Your task to perform on an android device: change notifications settings Image 0: 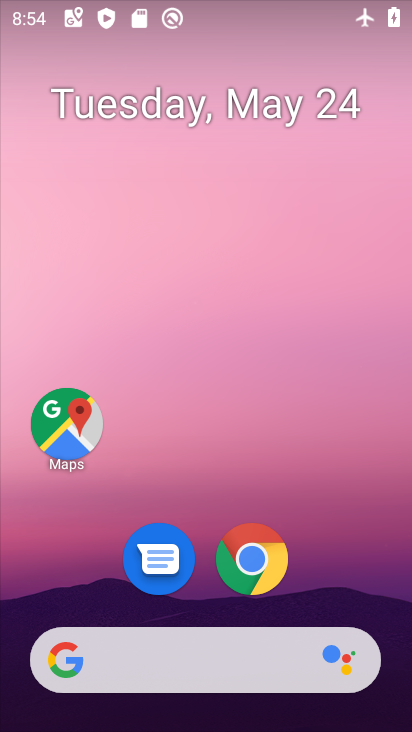
Step 0: drag from (259, 722) to (199, 87)
Your task to perform on an android device: change notifications settings Image 1: 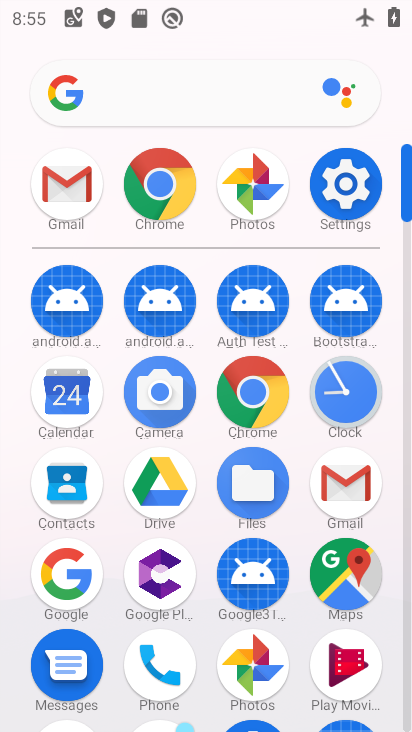
Step 1: click (337, 196)
Your task to perform on an android device: change notifications settings Image 2: 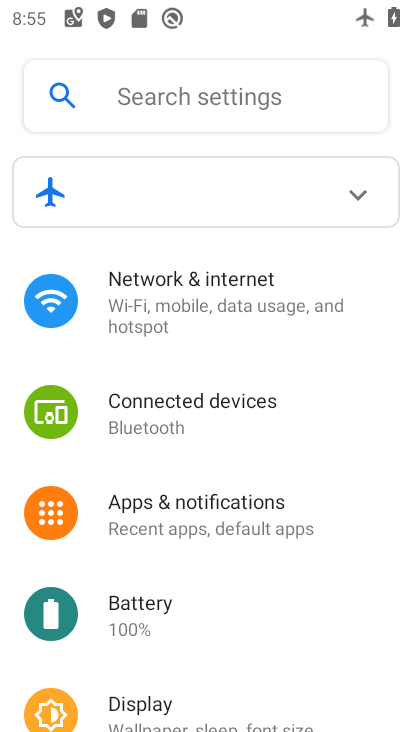
Step 2: drag from (130, 657) to (98, 181)
Your task to perform on an android device: change notifications settings Image 3: 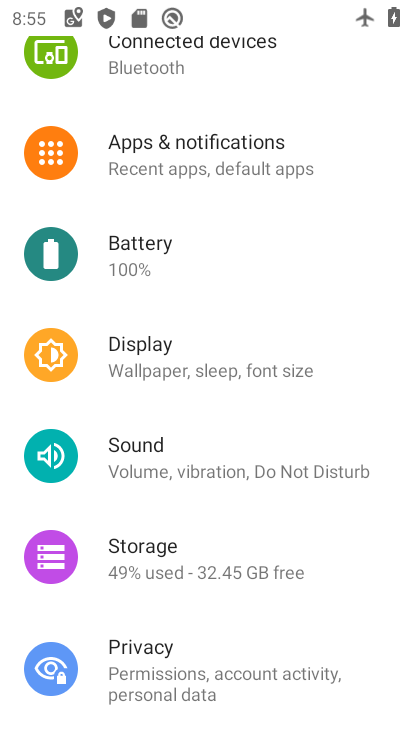
Step 3: click (108, 464)
Your task to perform on an android device: change notifications settings Image 4: 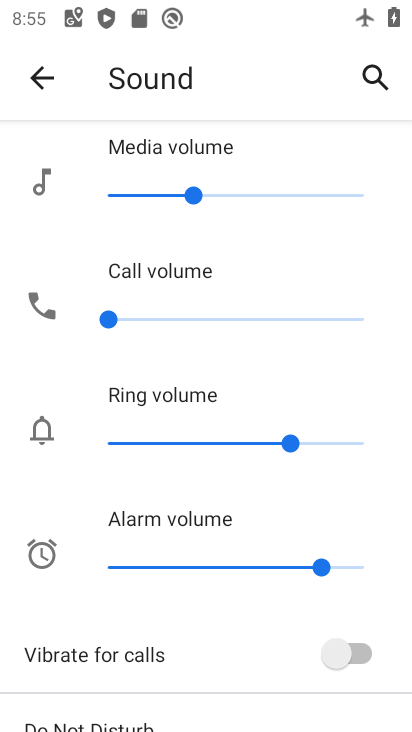
Step 4: click (349, 653)
Your task to perform on an android device: change notifications settings Image 5: 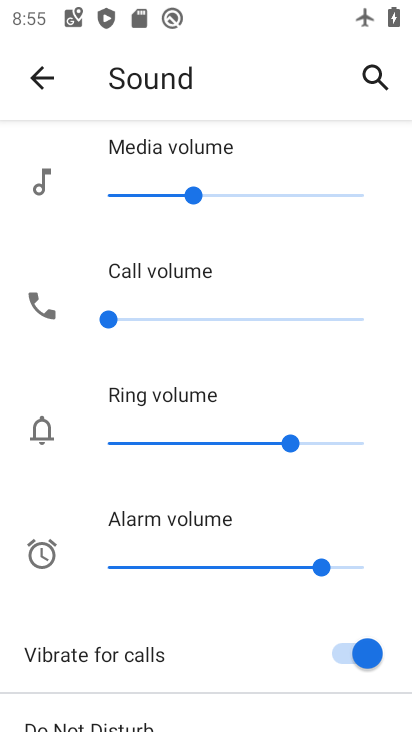
Step 5: task complete